Your task to perform on an android device: Go to internet settings Image 0: 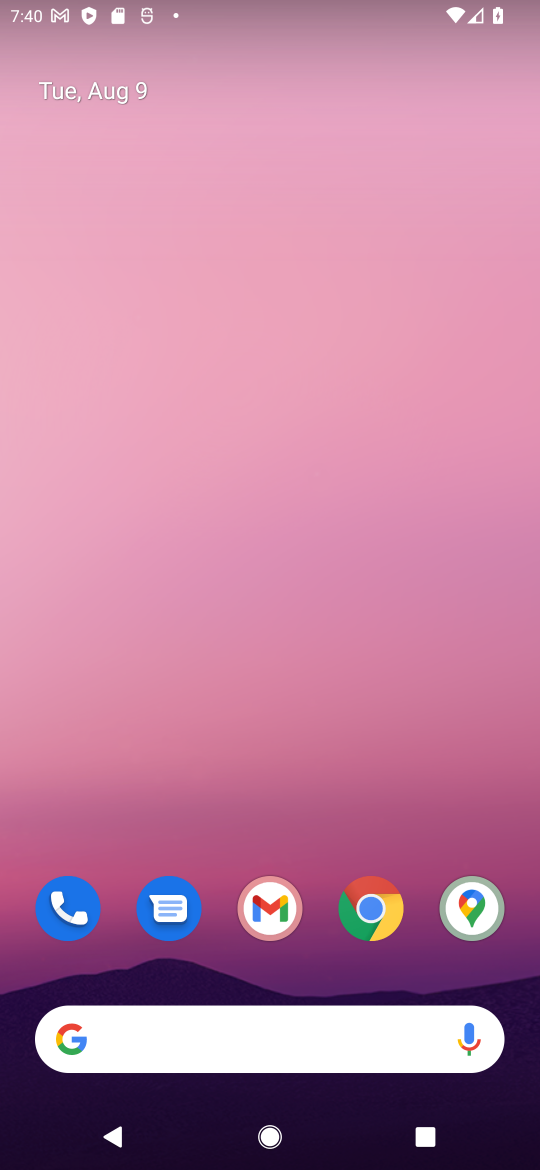
Step 0: drag from (312, 901) to (312, 114)
Your task to perform on an android device: Go to internet settings Image 1: 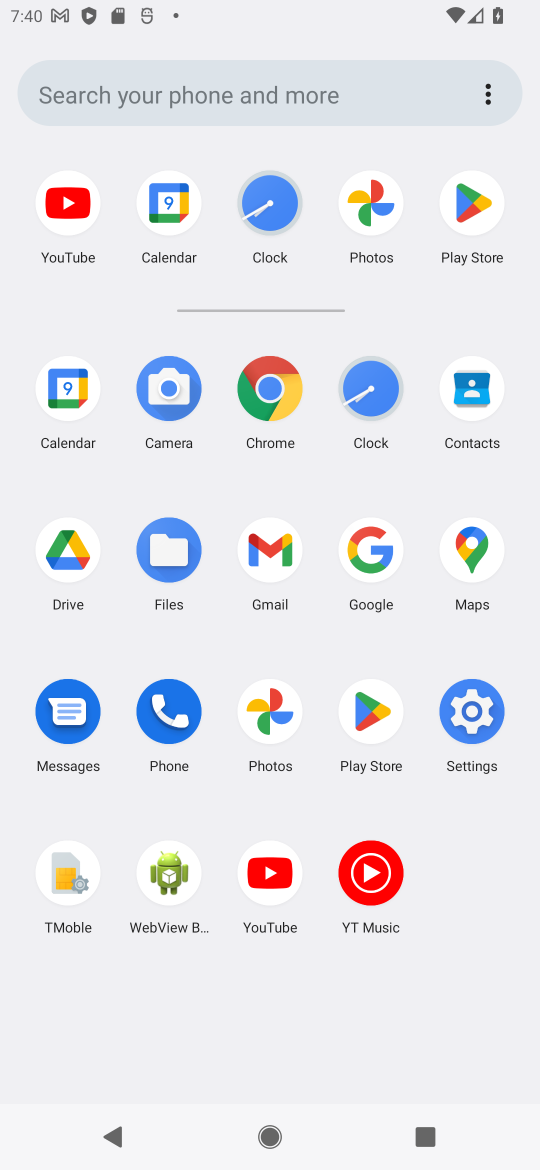
Step 1: click (478, 716)
Your task to perform on an android device: Go to internet settings Image 2: 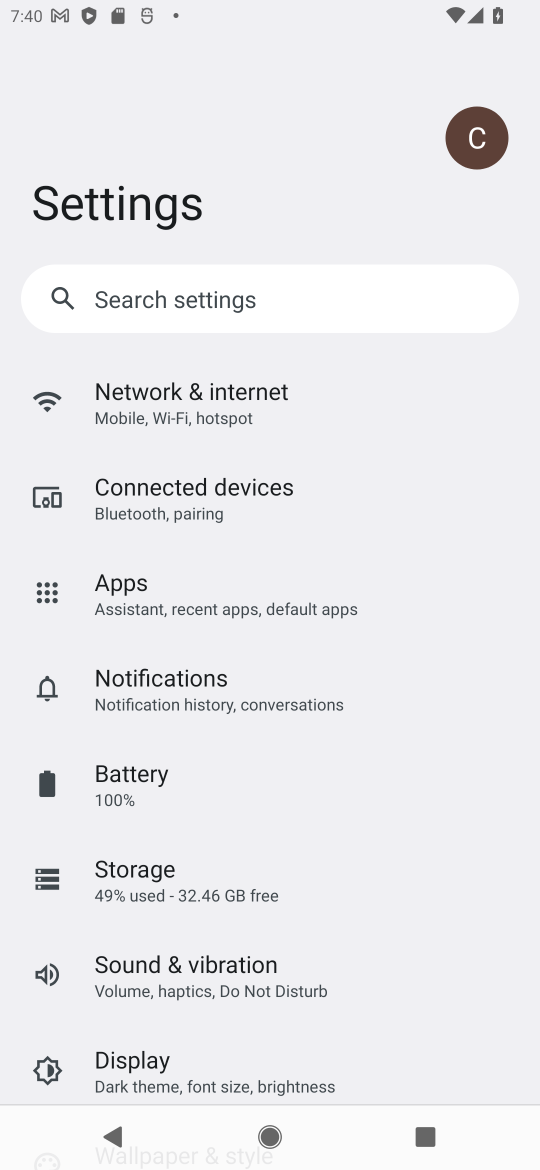
Step 2: click (153, 413)
Your task to perform on an android device: Go to internet settings Image 3: 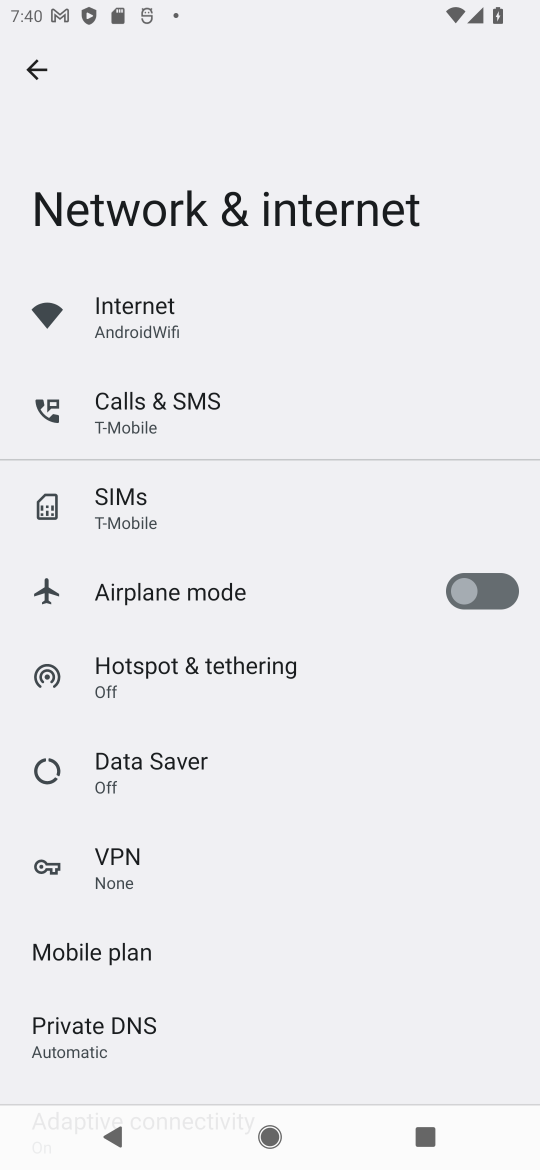
Step 3: click (118, 307)
Your task to perform on an android device: Go to internet settings Image 4: 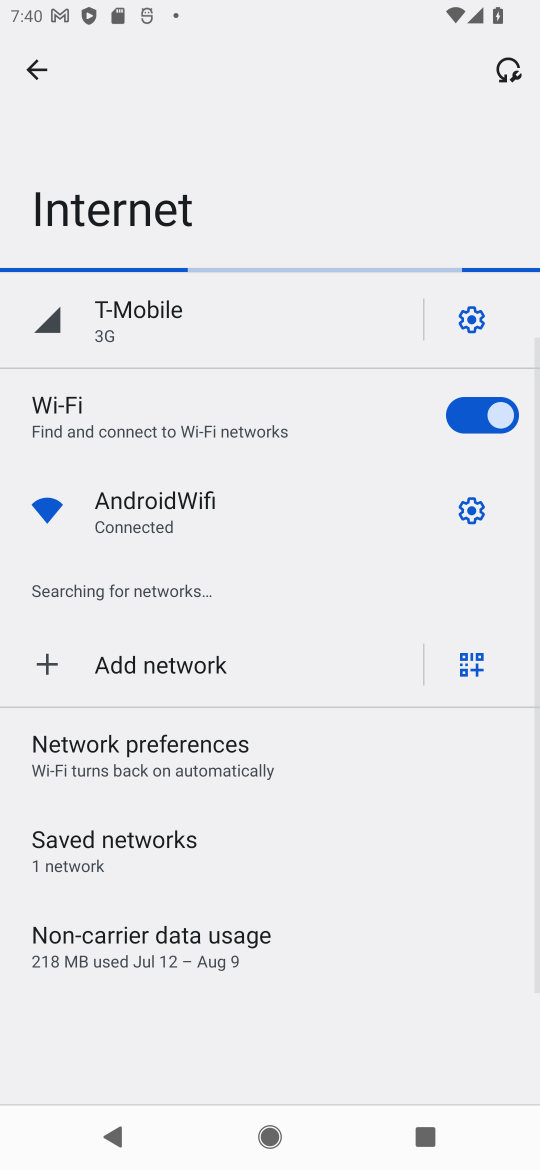
Step 4: task complete